Your task to perform on an android device: Open maps Image 0: 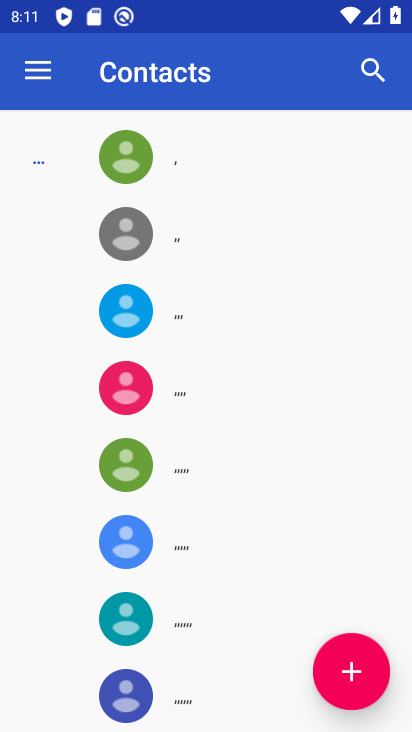
Step 0: press back button
Your task to perform on an android device: Open maps Image 1: 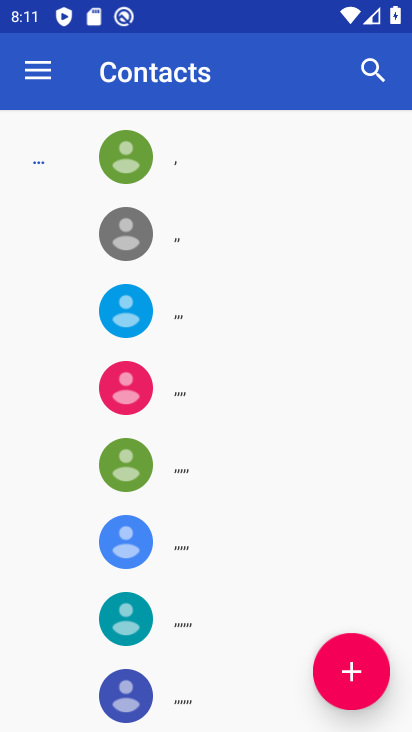
Step 1: press back button
Your task to perform on an android device: Open maps Image 2: 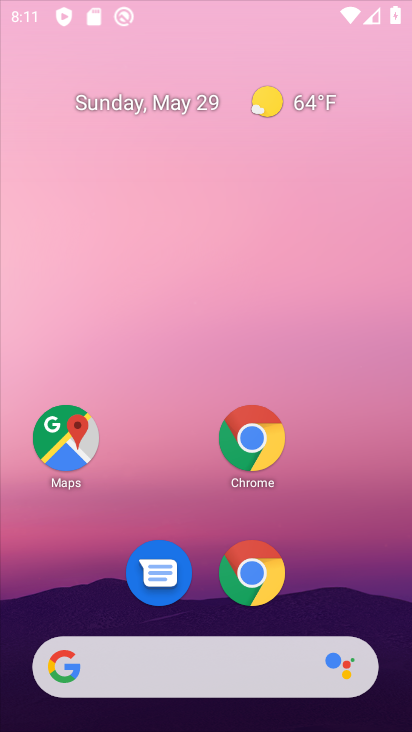
Step 2: press back button
Your task to perform on an android device: Open maps Image 3: 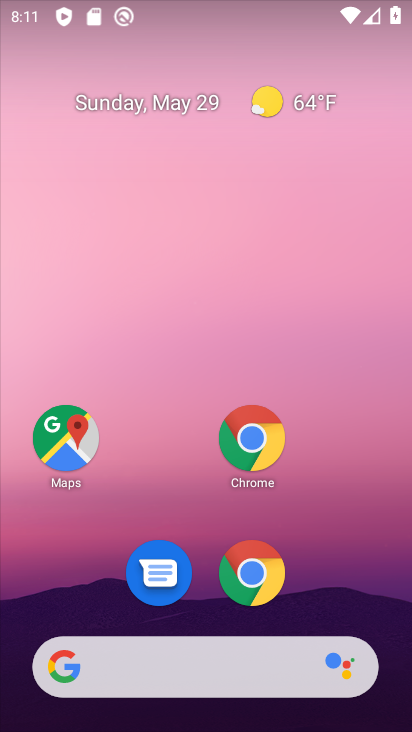
Step 3: press back button
Your task to perform on an android device: Open maps Image 4: 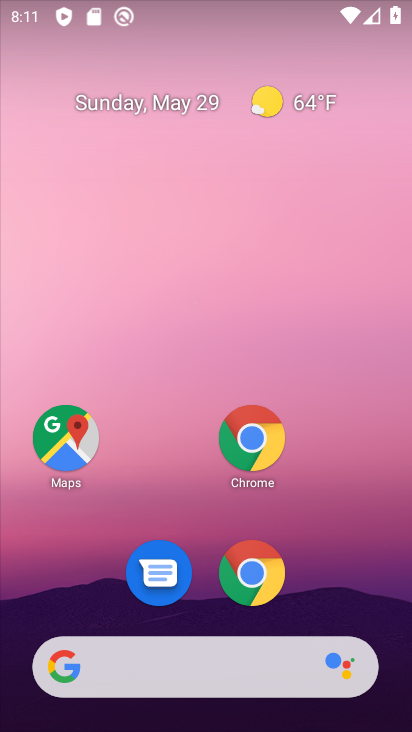
Step 4: drag from (356, 589) to (300, 95)
Your task to perform on an android device: Open maps Image 5: 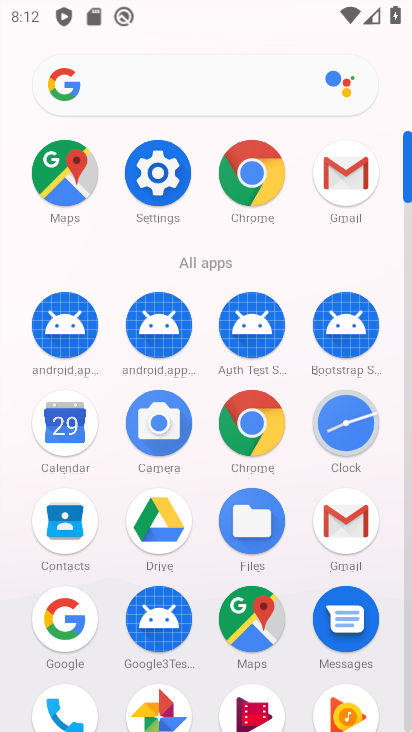
Step 5: click (242, 614)
Your task to perform on an android device: Open maps Image 6: 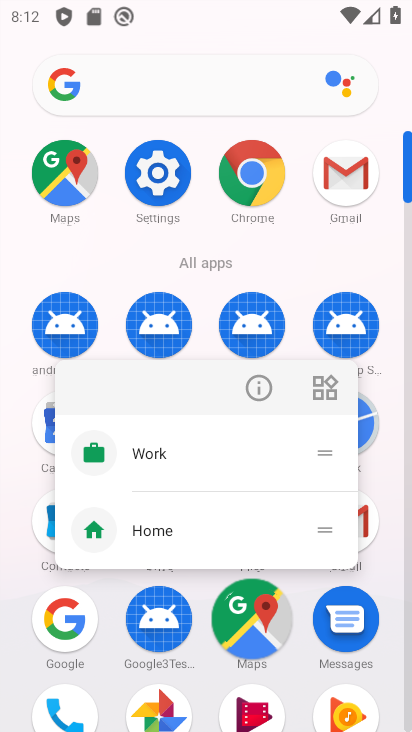
Step 6: click (241, 616)
Your task to perform on an android device: Open maps Image 7: 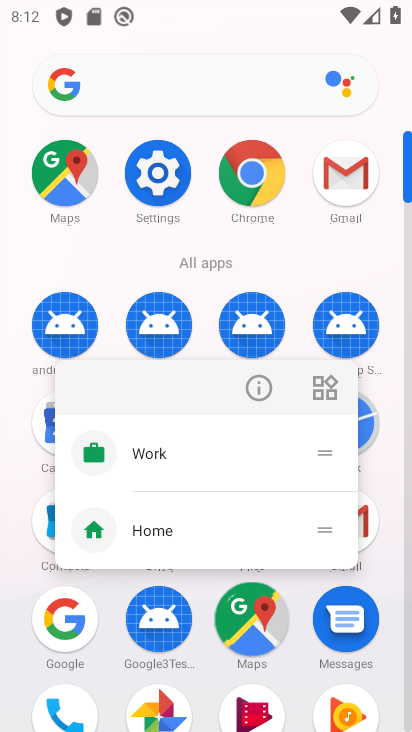
Step 7: click (243, 618)
Your task to perform on an android device: Open maps Image 8: 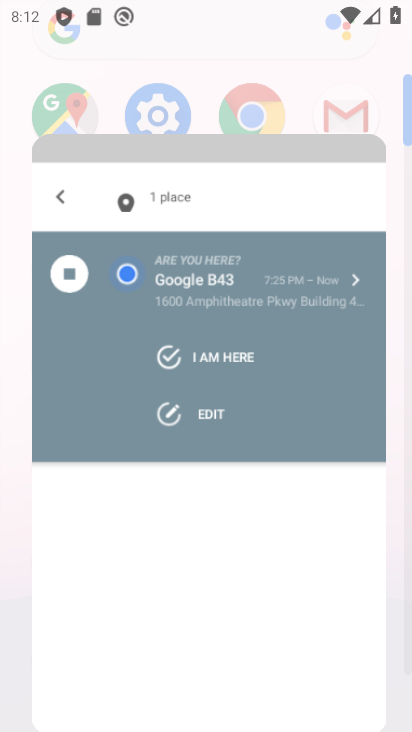
Step 8: click (245, 618)
Your task to perform on an android device: Open maps Image 9: 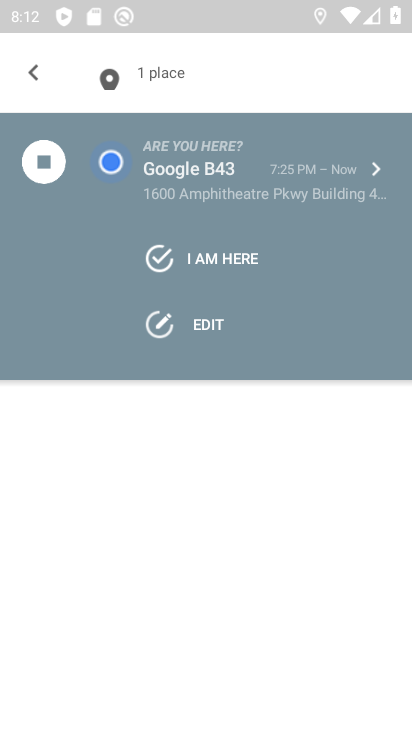
Step 9: click (37, 70)
Your task to perform on an android device: Open maps Image 10: 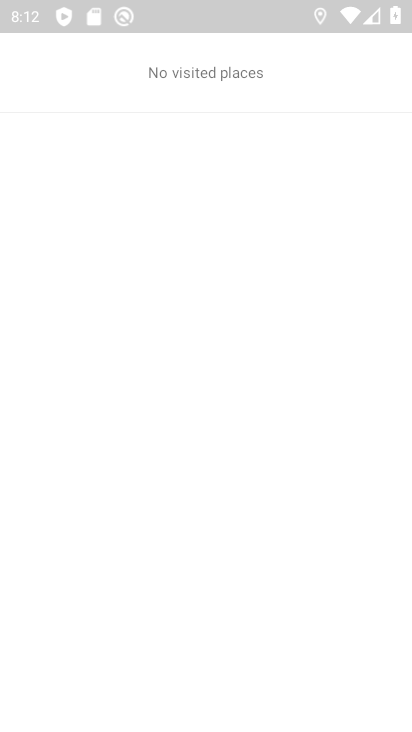
Step 10: task complete